Your task to perform on an android device: Open Yahoo.com Image 0: 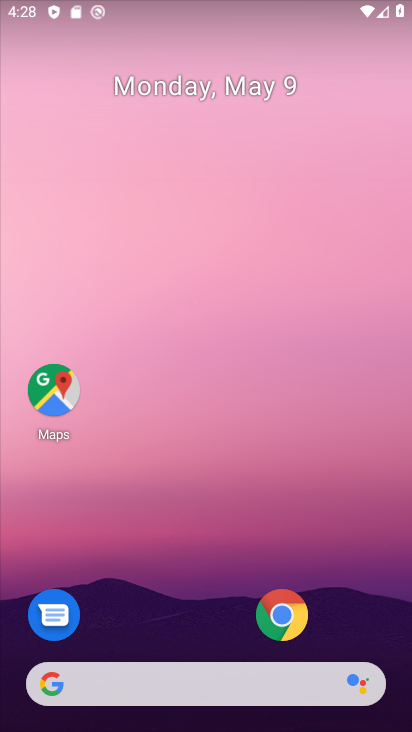
Step 0: click (277, 613)
Your task to perform on an android device: Open Yahoo.com Image 1: 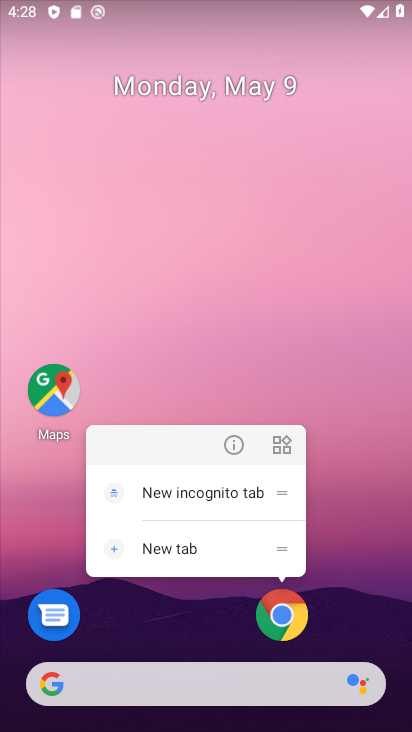
Step 1: click (285, 620)
Your task to perform on an android device: Open Yahoo.com Image 2: 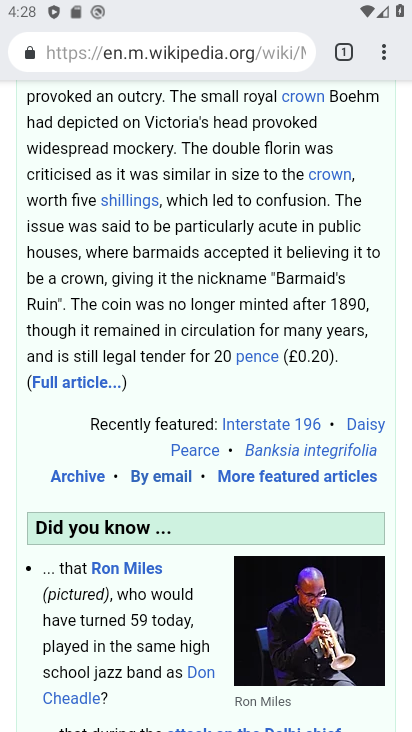
Step 2: click (347, 52)
Your task to perform on an android device: Open Yahoo.com Image 3: 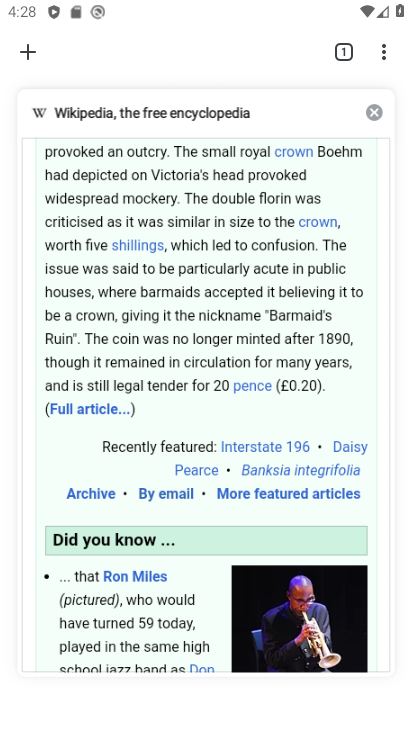
Step 3: click (25, 46)
Your task to perform on an android device: Open Yahoo.com Image 4: 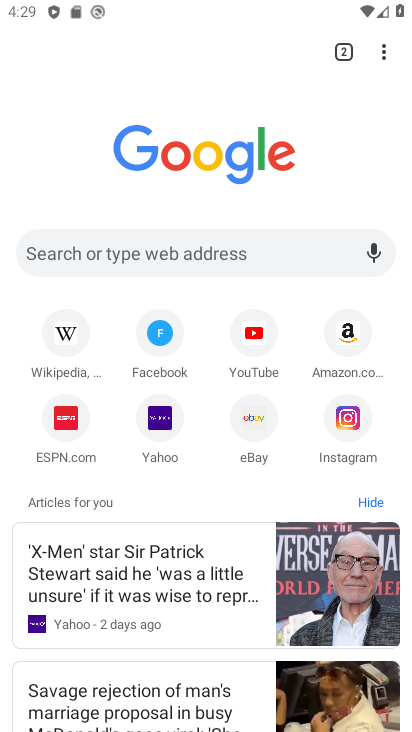
Step 4: click (163, 430)
Your task to perform on an android device: Open Yahoo.com Image 5: 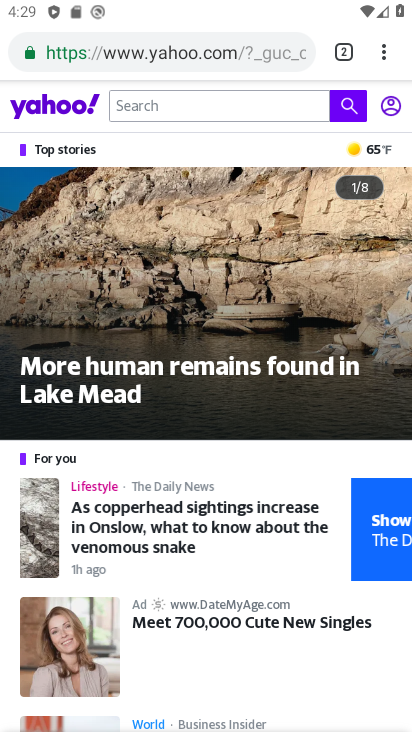
Step 5: task complete